Your task to perform on an android device: Open Google Image 0: 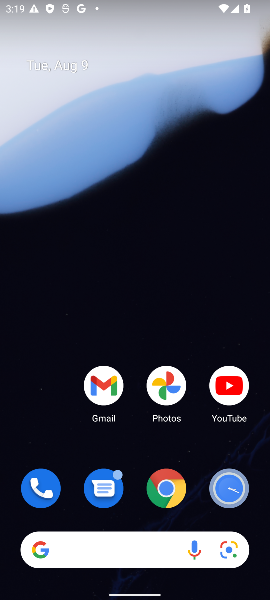
Step 0: drag from (204, 457) to (177, 111)
Your task to perform on an android device: Open Google Image 1: 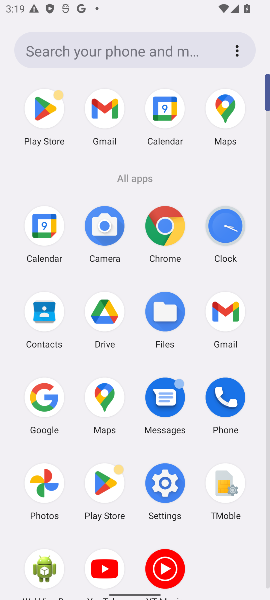
Step 1: click (51, 399)
Your task to perform on an android device: Open Google Image 2: 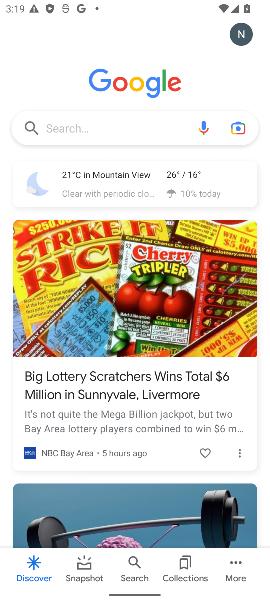
Step 2: task complete